Your task to perform on an android device: Open settings on Google Maps Image 0: 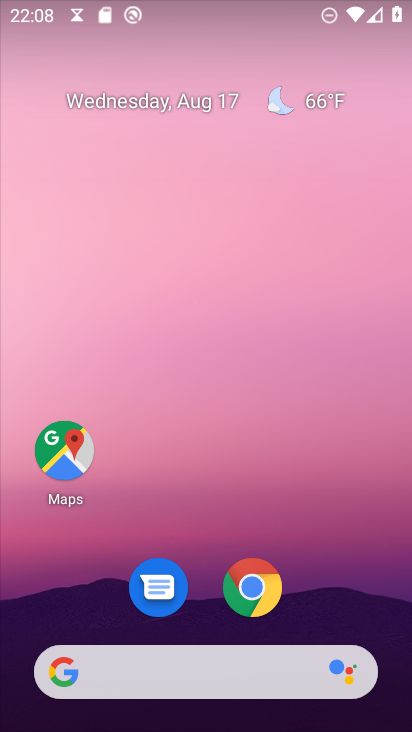
Step 0: click (69, 466)
Your task to perform on an android device: Open settings on Google Maps Image 1: 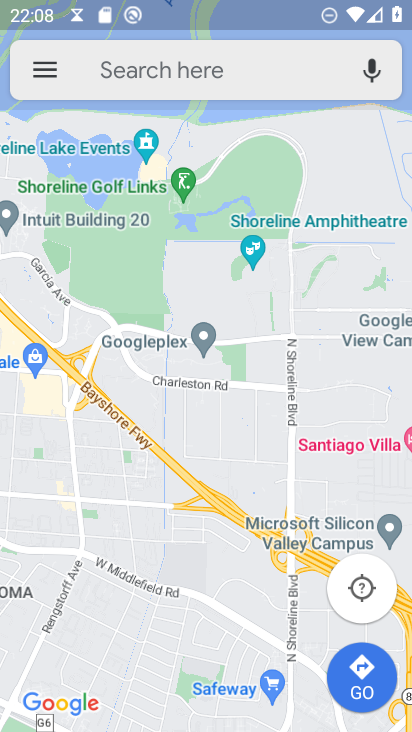
Step 1: click (40, 75)
Your task to perform on an android device: Open settings on Google Maps Image 2: 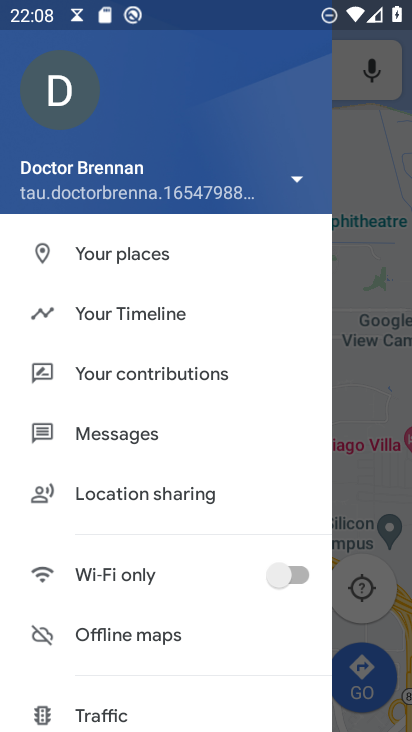
Step 2: drag from (193, 705) to (322, 204)
Your task to perform on an android device: Open settings on Google Maps Image 3: 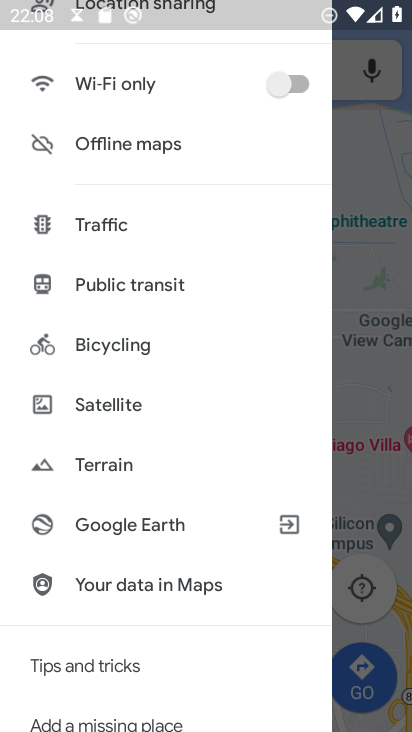
Step 3: drag from (231, 673) to (277, 230)
Your task to perform on an android device: Open settings on Google Maps Image 4: 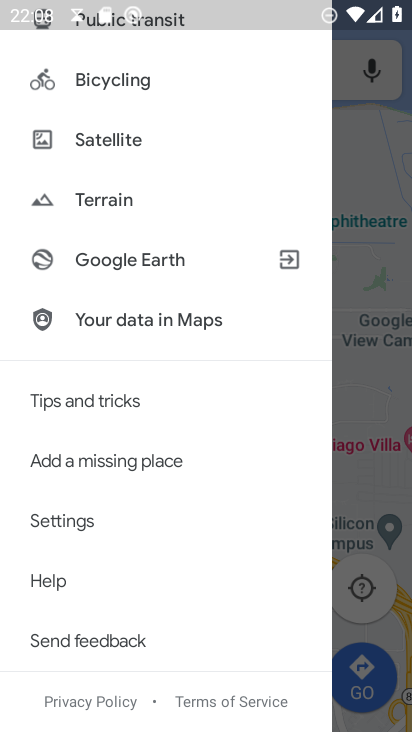
Step 4: click (76, 526)
Your task to perform on an android device: Open settings on Google Maps Image 5: 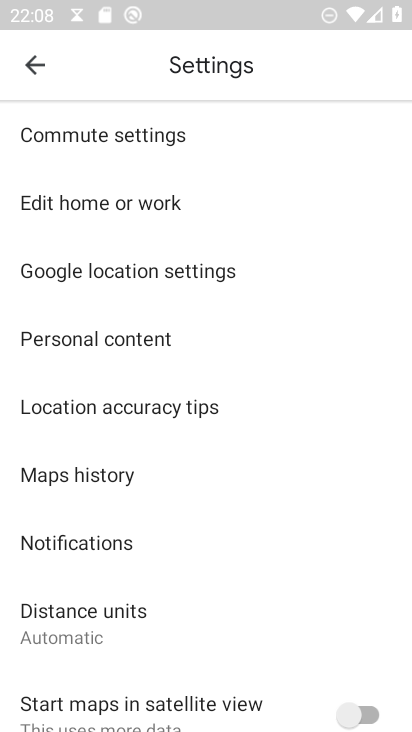
Step 5: task complete